Your task to perform on an android device: check out phone information Image 0: 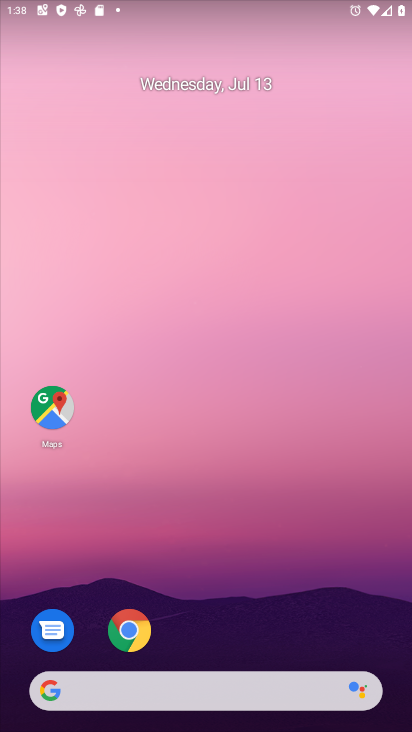
Step 0: drag from (389, 662) to (290, 57)
Your task to perform on an android device: check out phone information Image 1: 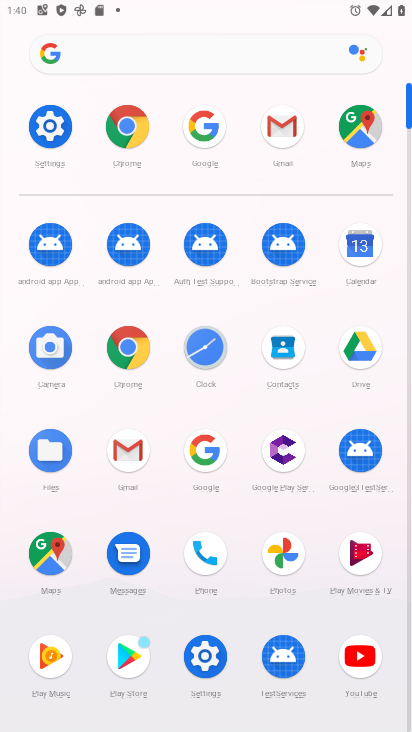
Step 1: click (187, 665)
Your task to perform on an android device: check out phone information Image 2: 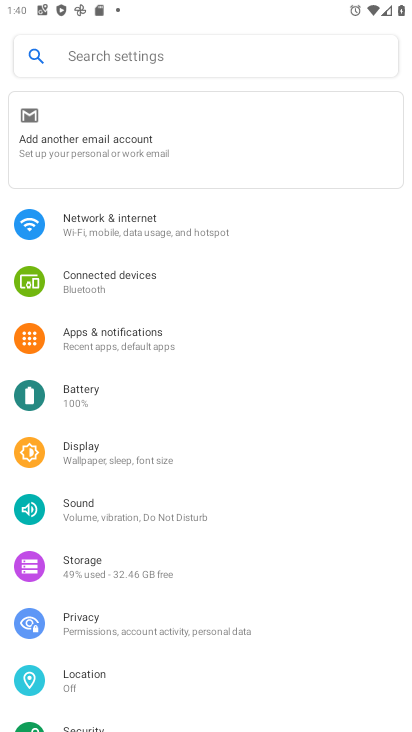
Step 2: task complete